Your task to perform on an android device: Go to internet settings Image 0: 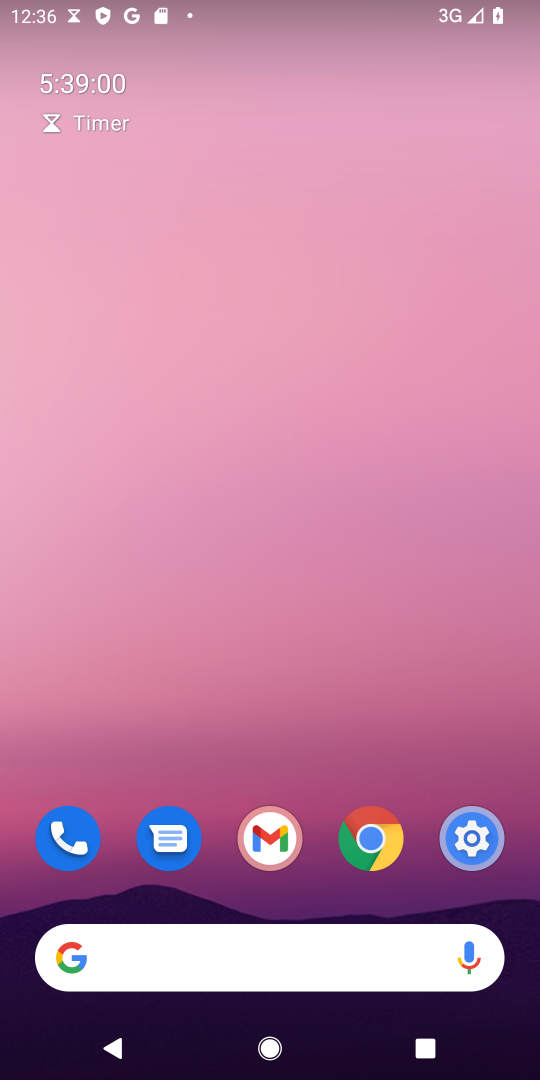
Step 0: click (472, 841)
Your task to perform on an android device: Go to internet settings Image 1: 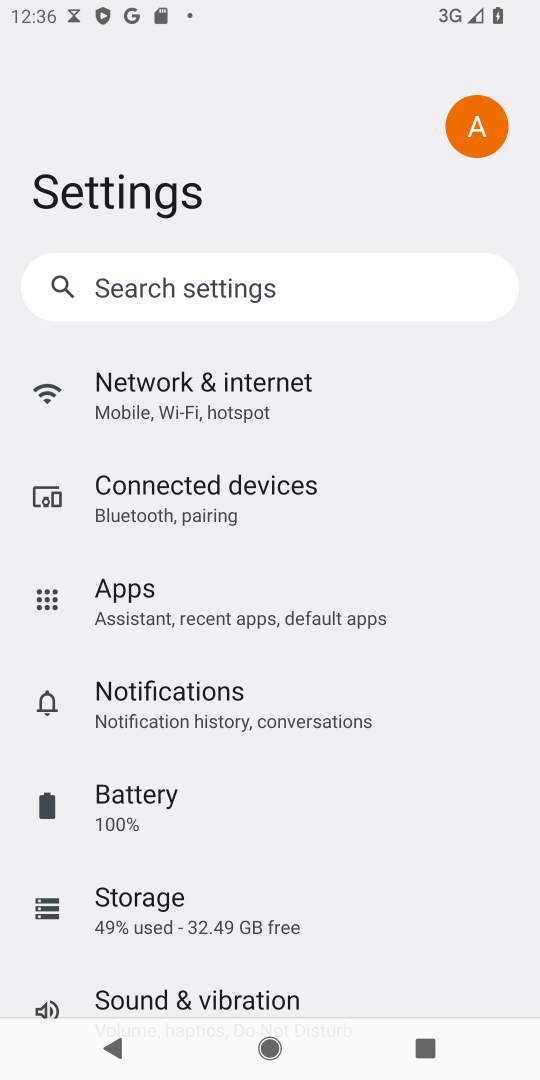
Step 1: click (201, 413)
Your task to perform on an android device: Go to internet settings Image 2: 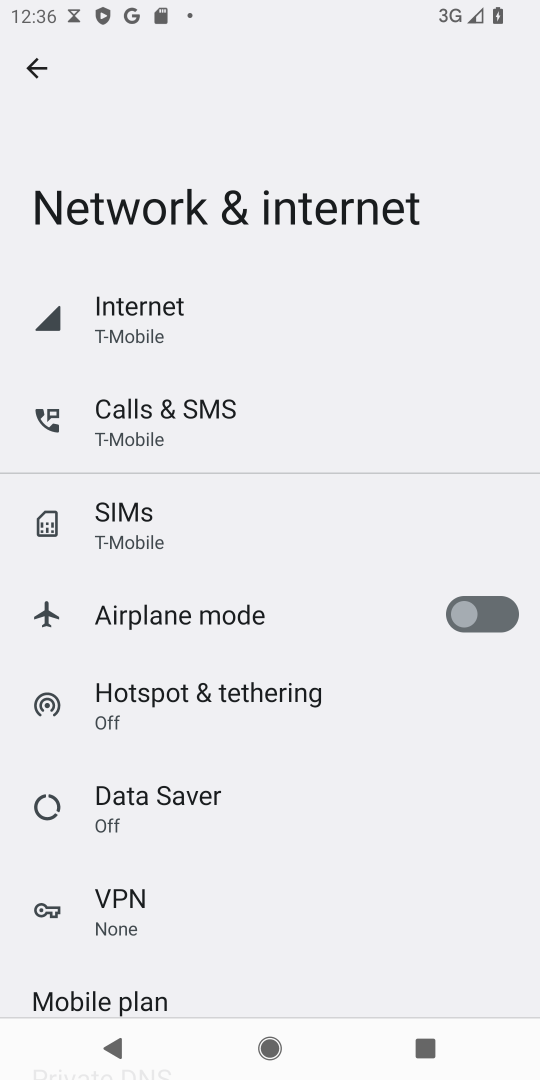
Step 2: click (155, 316)
Your task to perform on an android device: Go to internet settings Image 3: 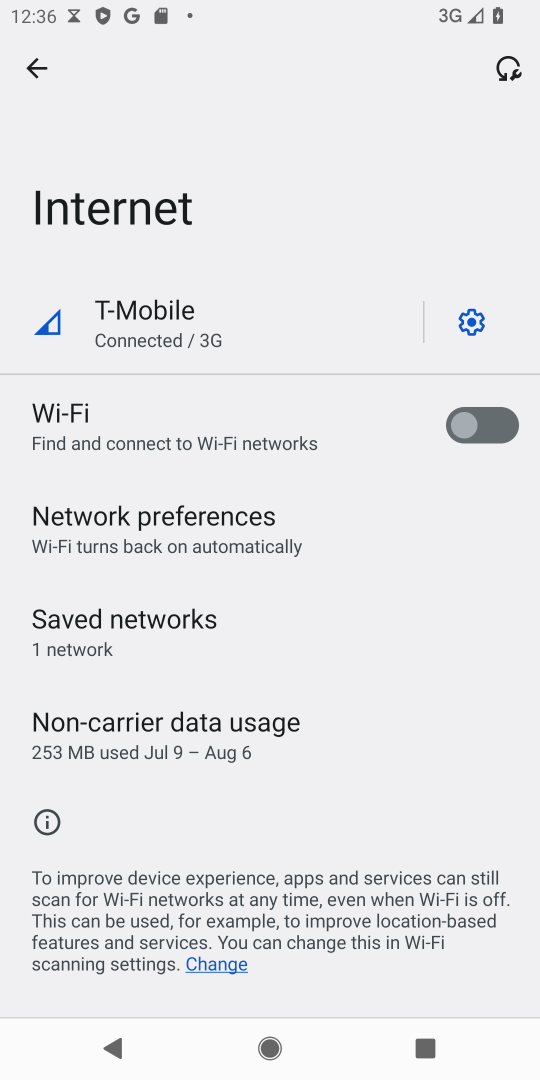
Step 3: click (462, 325)
Your task to perform on an android device: Go to internet settings Image 4: 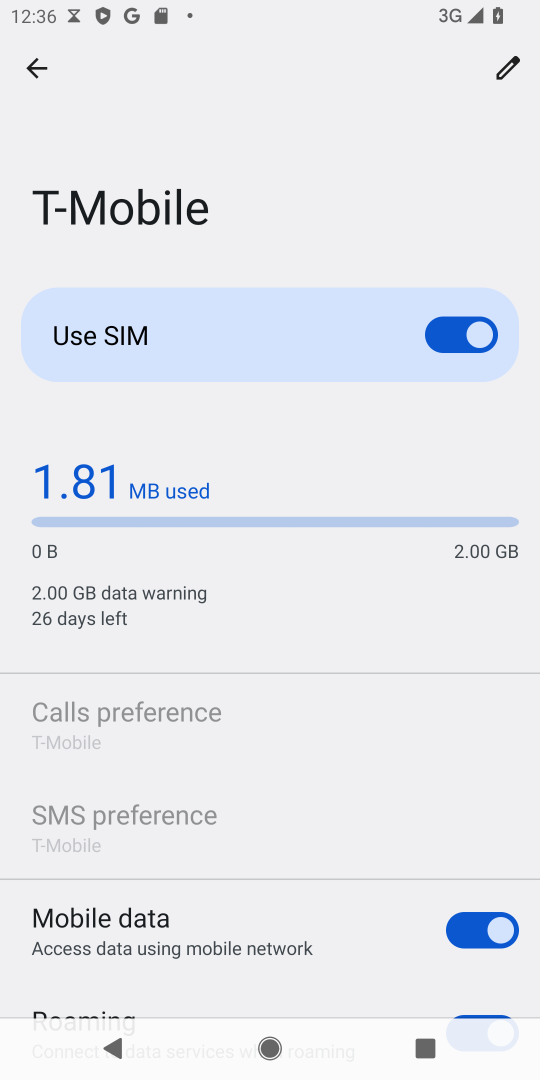
Step 4: task complete